Your task to perform on an android device: Go to settings Image 0: 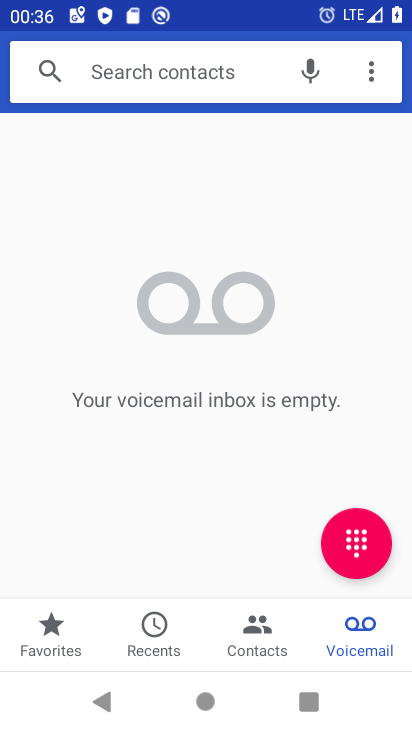
Step 0: drag from (308, 538) to (311, 287)
Your task to perform on an android device: Go to settings Image 1: 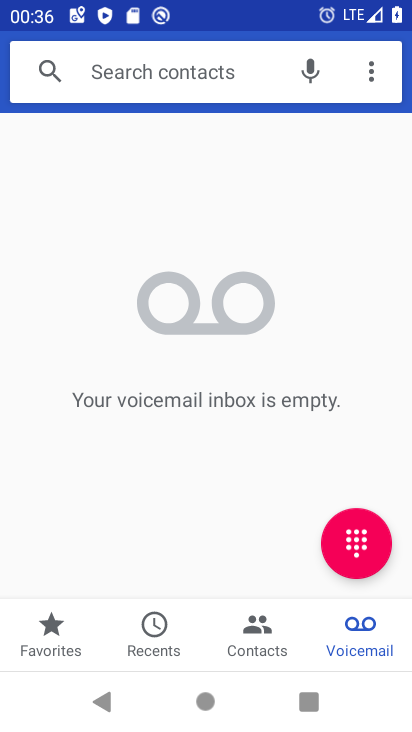
Step 1: press home button
Your task to perform on an android device: Go to settings Image 2: 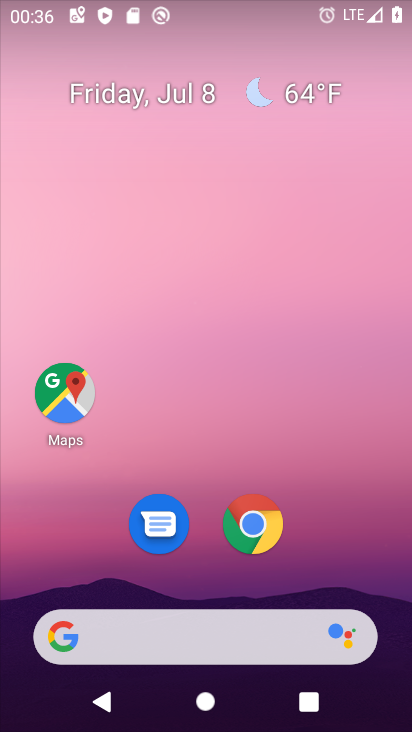
Step 2: drag from (348, 534) to (342, 77)
Your task to perform on an android device: Go to settings Image 3: 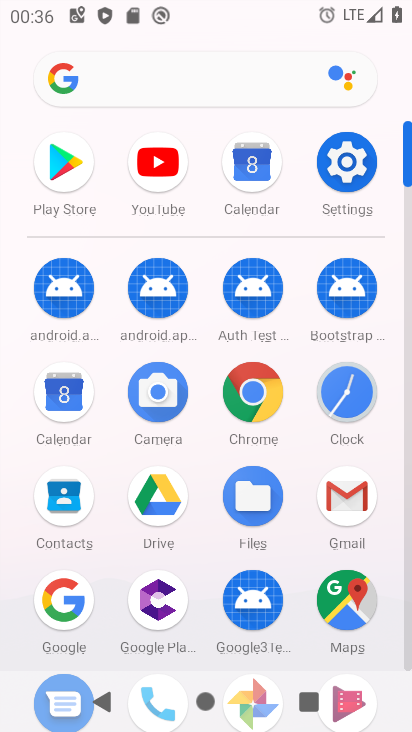
Step 3: click (355, 176)
Your task to perform on an android device: Go to settings Image 4: 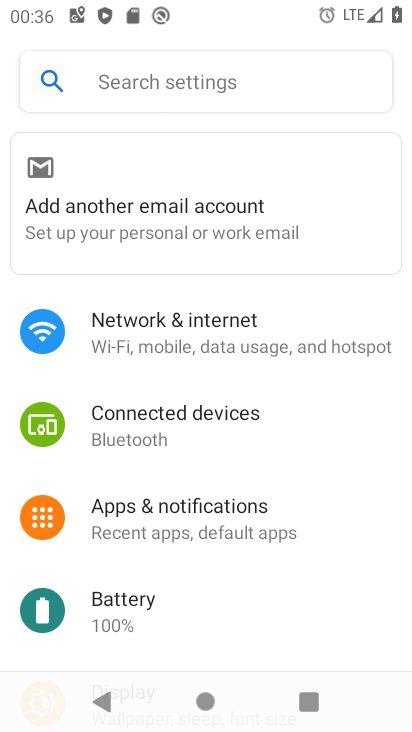
Step 4: task complete